Your task to perform on an android device: open a bookmark in the chrome app Image 0: 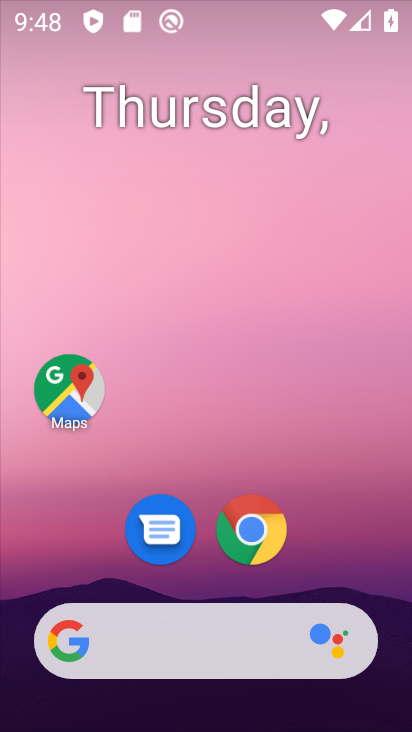
Step 0: click (250, 522)
Your task to perform on an android device: open a bookmark in the chrome app Image 1: 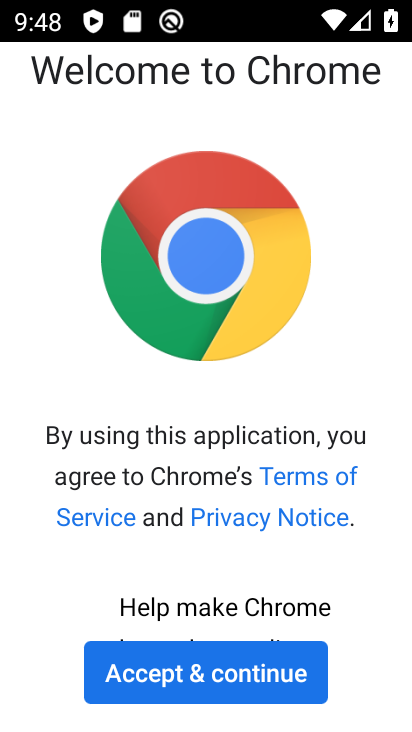
Step 1: click (228, 682)
Your task to perform on an android device: open a bookmark in the chrome app Image 2: 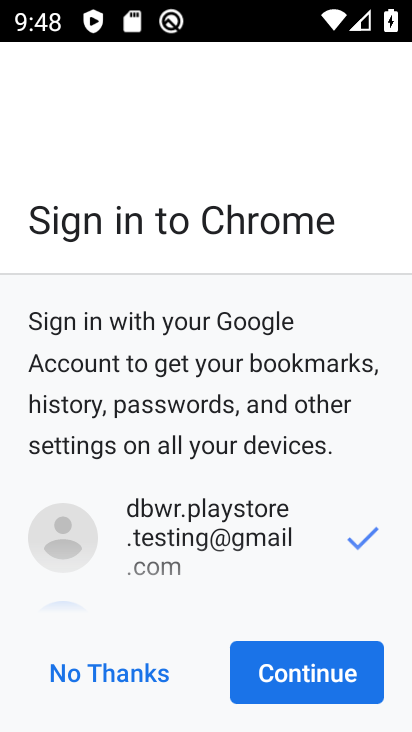
Step 2: click (263, 680)
Your task to perform on an android device: open a bookmark in the chrome app Image 3: 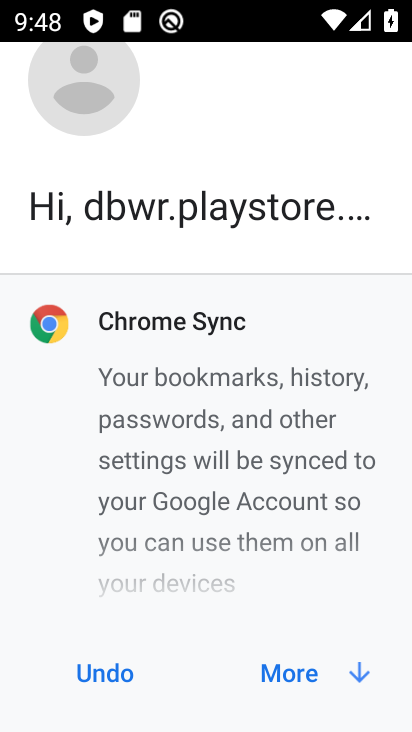
Step 3: click (365, 676)
Your task to perform on an android device: open a bookmark in the chrome app Image 4: 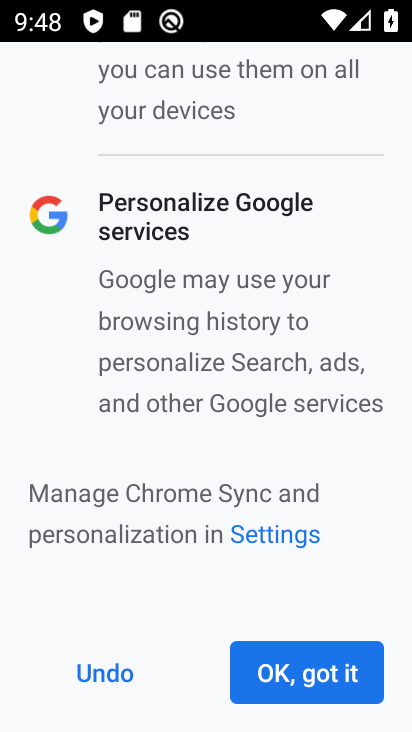
Step 4: click (287, 699)
Your task to perform on an android device: open a bookmark in the chrome app Image 5: 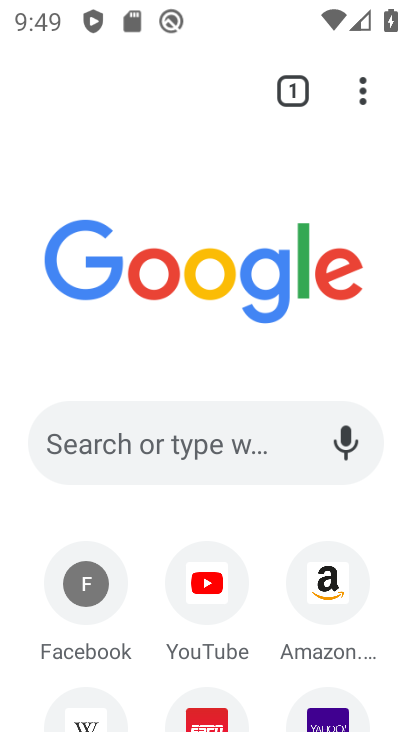
Step 5: click (362, 84)
Your task to perform on an android device: open a bookmark in the chrome app Image 6: 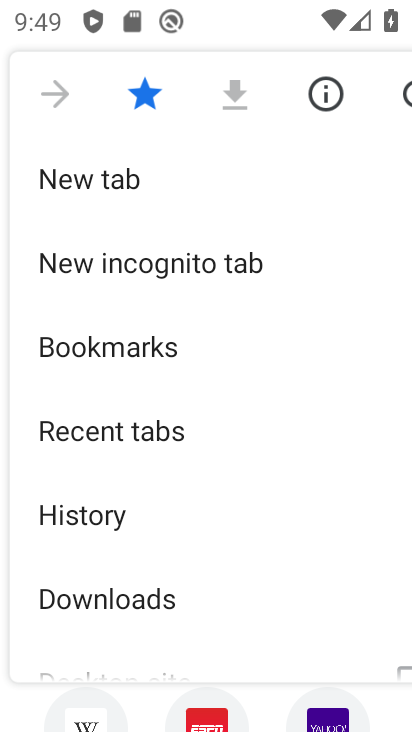
Step 6: click (137, 339)
Your task to perform on an android device: open a bookmark in the chrome app Image 7: 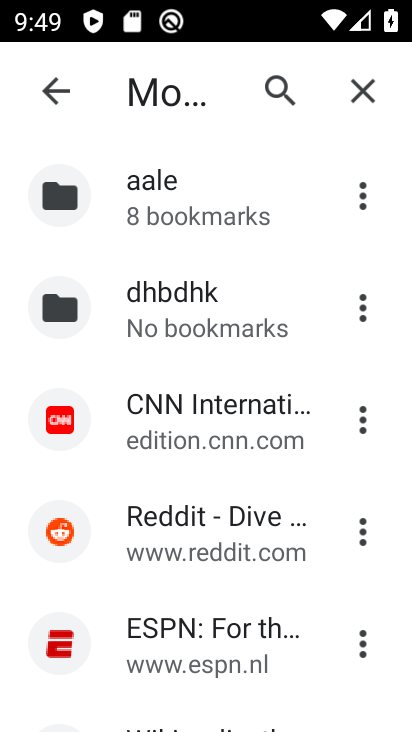
Step 7: task complete